Your task to perform on an android device: change text size in settings app Image 0: 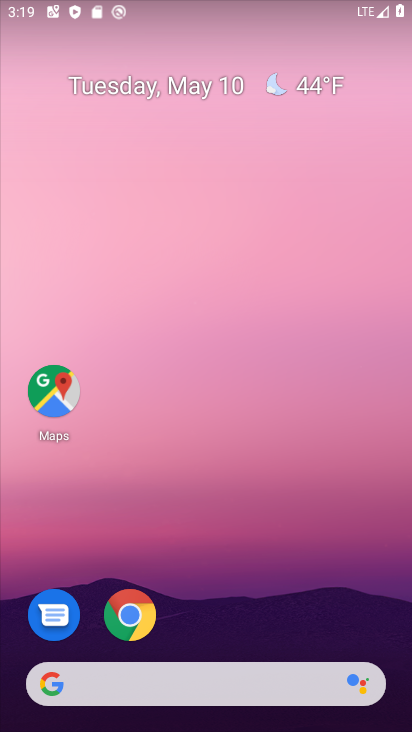
Step 0: drag from (243, 627) to (247, 92)
Your task to perform on an android device: change text size in settings app Image 1: 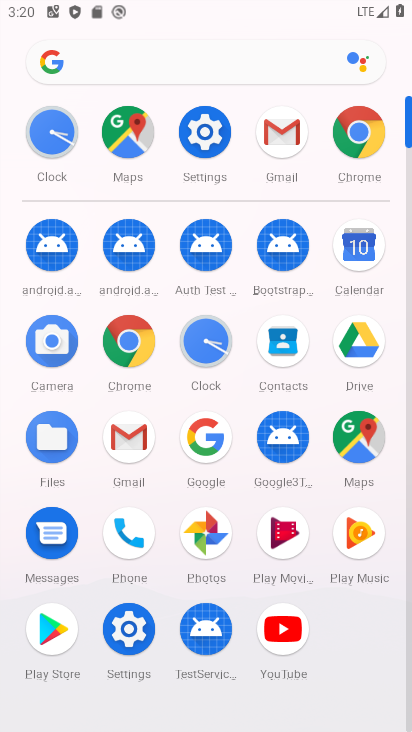
Step 1: click (123, 628)
Your task to perform on an android device: change text size in settings app Image 2: 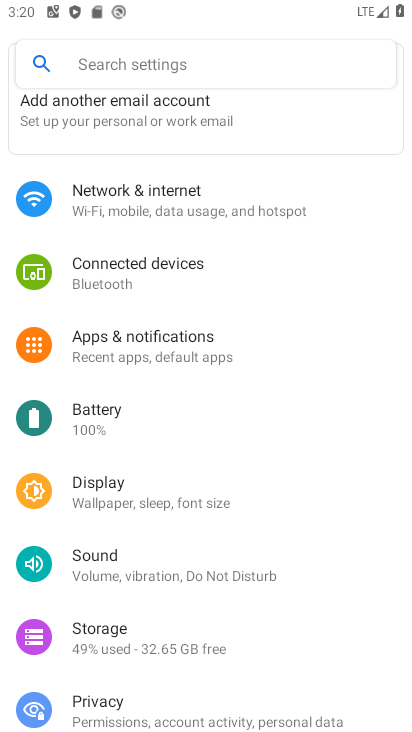
Step 2: drag from (296, 652) to (330, 309)
Your task to perform on an android device: change text size in settings app Image 3: 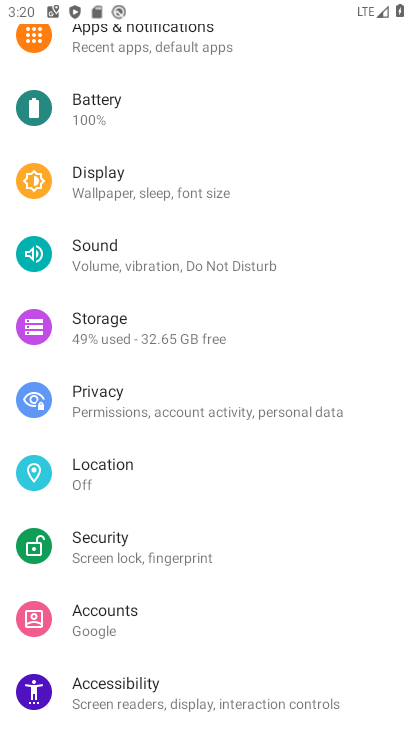
Step 3: drag from (344, 170) to (324, 488)
Your task to perform on an android device: change text size in settings app Image 4: 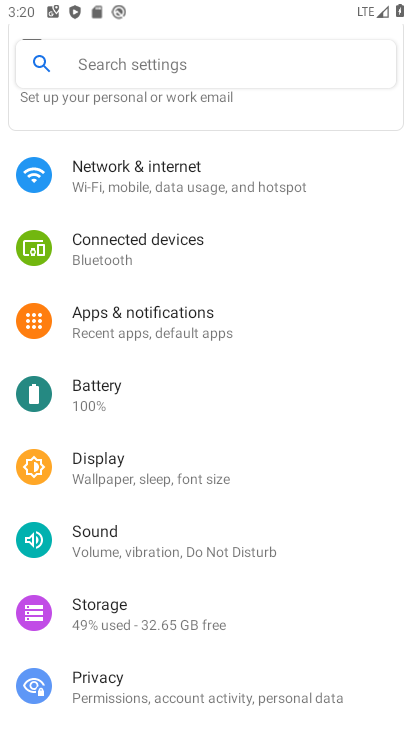
Step 4: drag from (273, 153) to (249, 405)
Your task to perform on an android device: change text size in settings app Image 5: 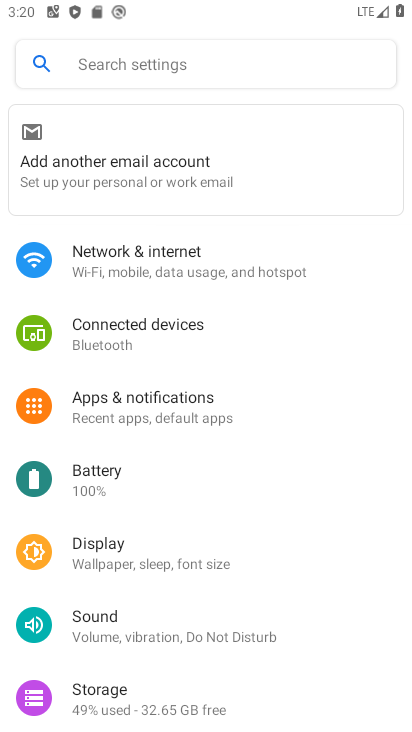
Step 5: click (134, 323)
Your task to perform on an android device: change text size in settings app Image 6: 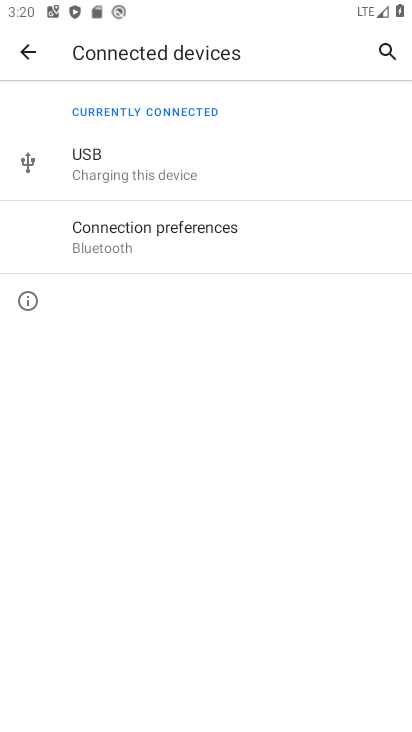
Step 6: click (28, 53)
Your task to perform on an android device: change text size in settings app Image 7: 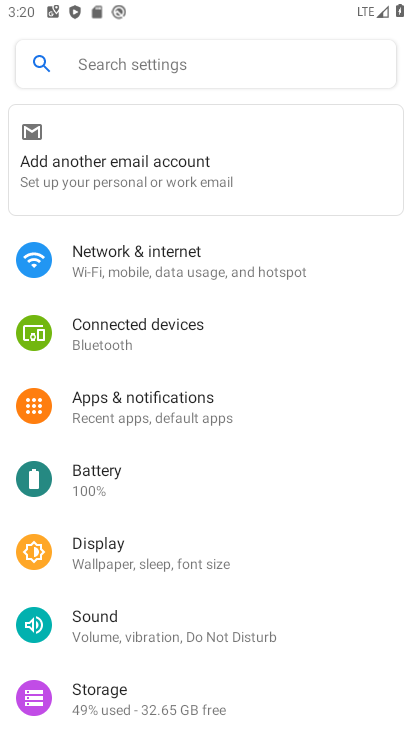
Step 7: click (143, 549)
Your task to perform on an android device: change text size in settings app Image 8: 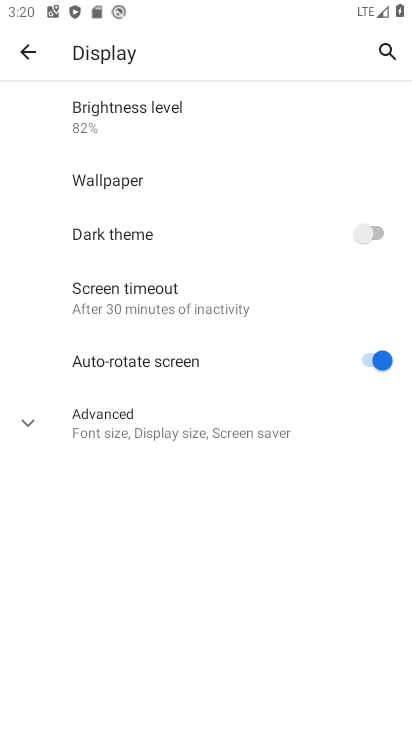
Step 8: click (199, 428)
Your task to perform on an android device: change text size in settings app Image 9: 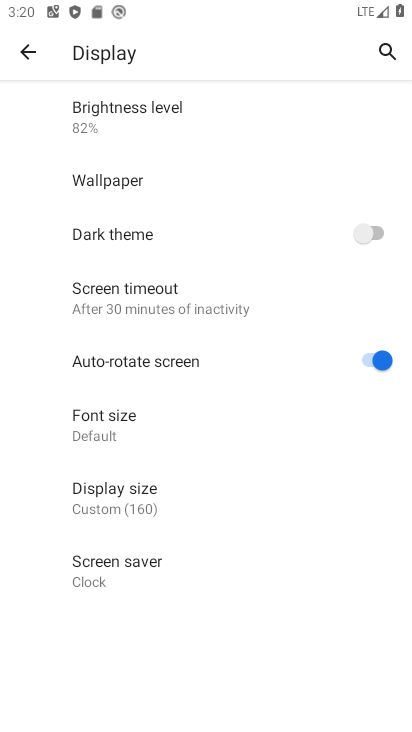
Step 9: click (104, 412)
Your task to perform on an android device: change text size in settings app Image 10: 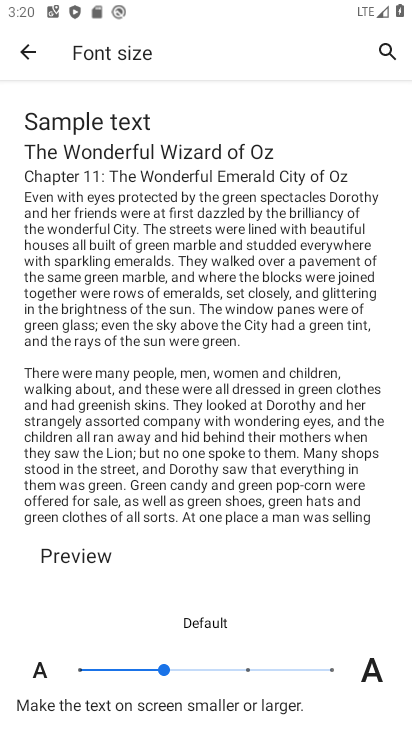
Step 10: click (242, 659)
Your task to perform on an android device: change text size in settings app Image 11: 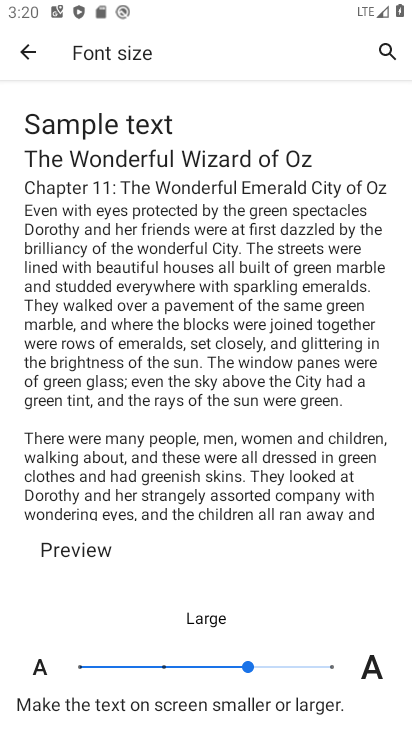
Step 11: click (179, 666)
Your task to perform on an android device: change text size in settings app Image 12: 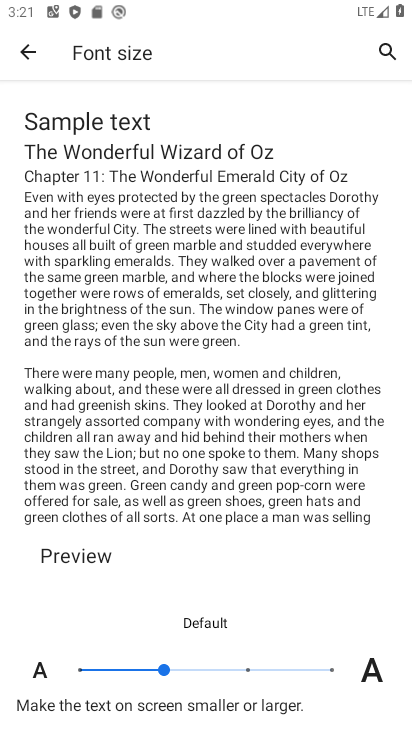
Step 12: task complete